Your task to perform on an android device: Open Reddit.com Image 0: 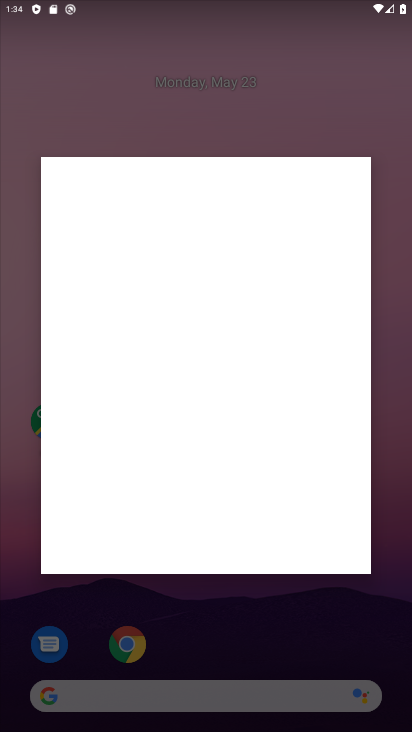
Step 0: press home button
Your task to perform on an android device: Open Reddit.com Image 1: 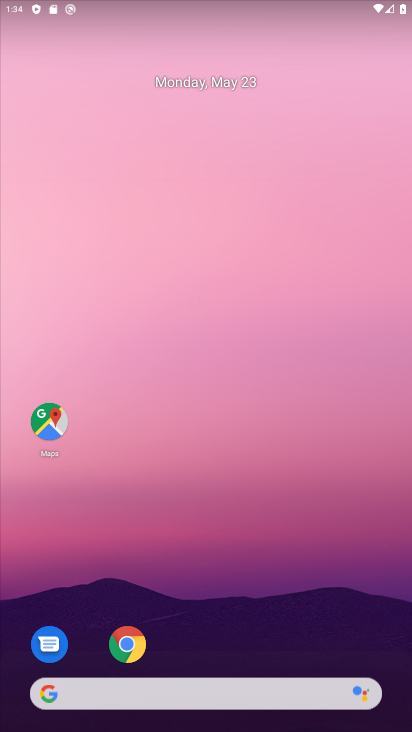
Step 1: click (125, 645)
Your task to perform on an android device: Open Reddit.com Image 2: 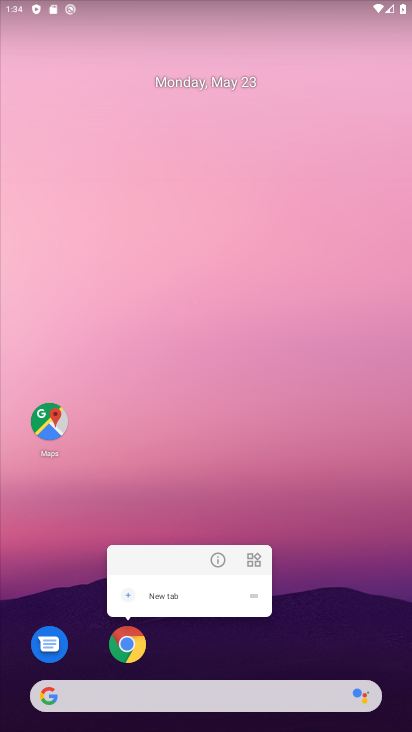
Step 2: click (134, 641)
Your task to perform on an android device: Open Reddit.com Image 3: 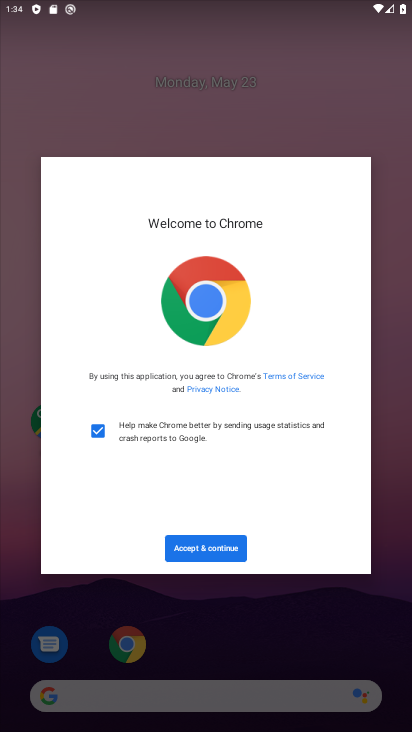
Step 3: click (187, 547)
Your task to perform on an android device: Open Reddit.com Image 4: 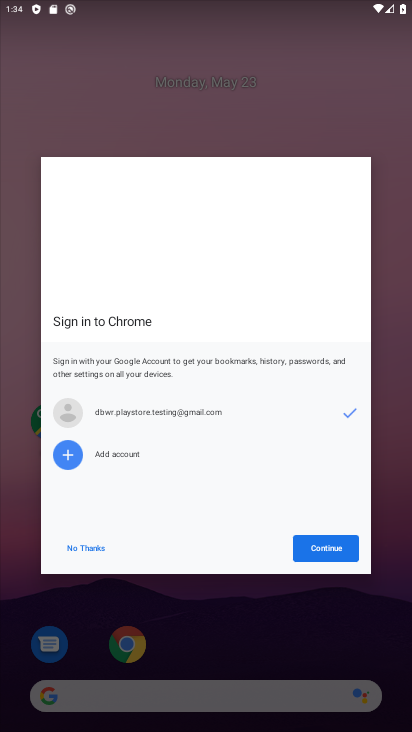
Step 4: click (86, 553)
Your task to perform on an android device: Open Reddit.com Image 5: 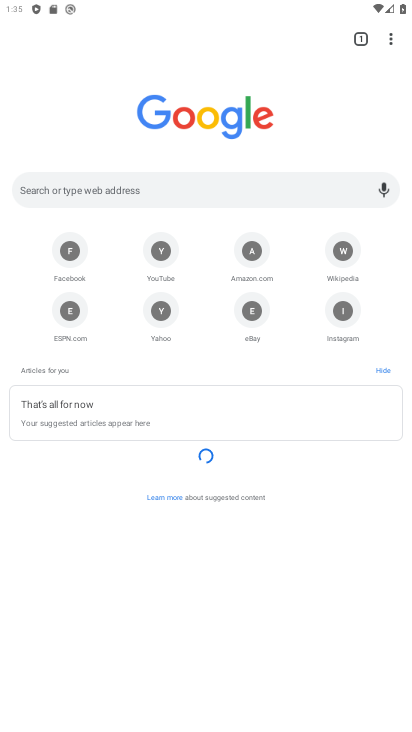
Step 5: click (82, 35)
Your task to perform on an android device: Open Reddit.com Image 6: 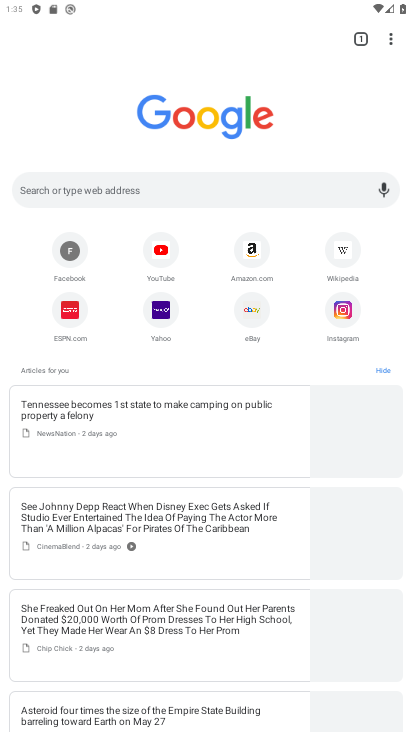
Step 6: click (129, 192)
Your task to perform on an android device: Open Reddit.com Image 7: 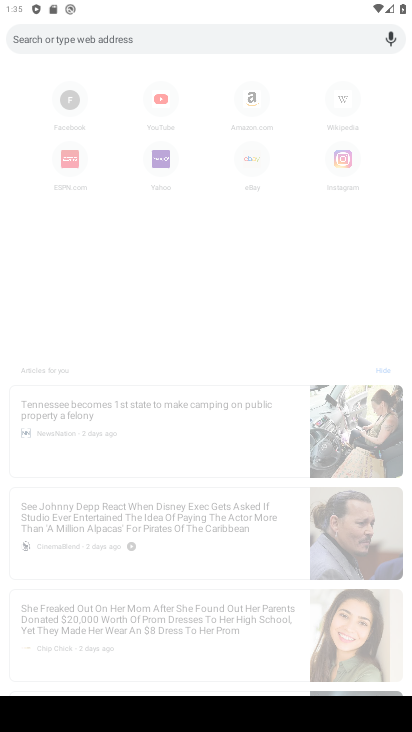
Step 7: type "reddit"
Your task to perform on an android device: Open Reddit.com Image 8: 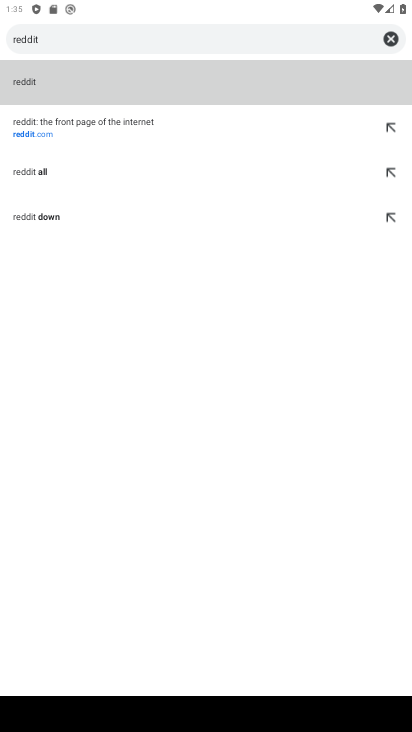
Step 8: click (39, 133)
Your task to perform on an android device: Open Reddit.com Image 9: 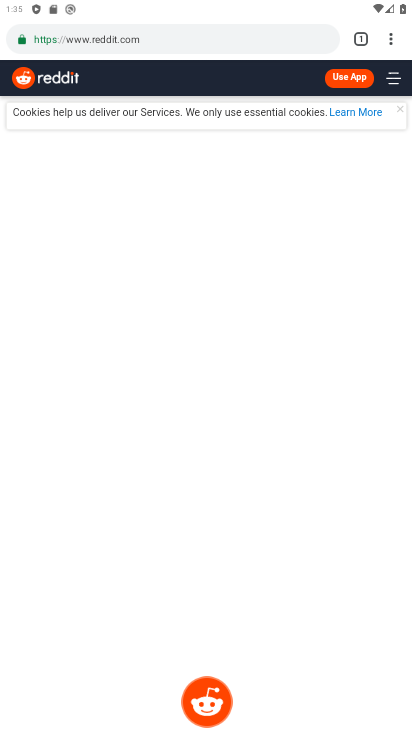
Step 9: task complete